Your task to perform on an android device: uninstall "WhatsApp Messenger" Image 0: 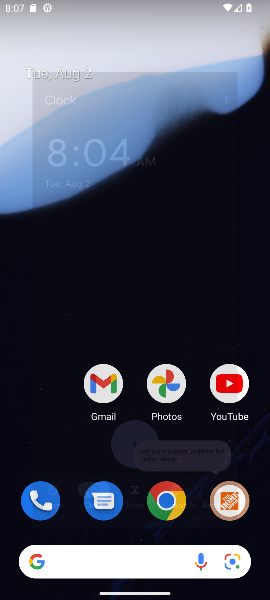
Step 0: click (252, 317)
Your task to perform on an android device: uninstall "WhatsApp Messenger" Image 1: 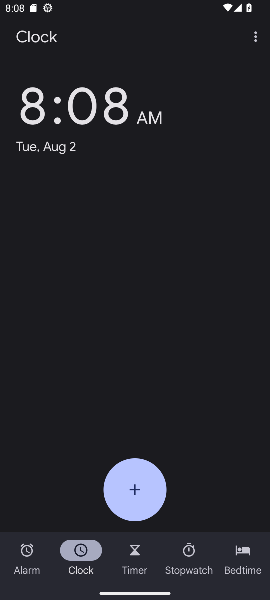
Step 1: drag from (174, 517) to (185, 165)
Your task to perform on an android device: uninstall "WhatsApp Messenger" Image 2: 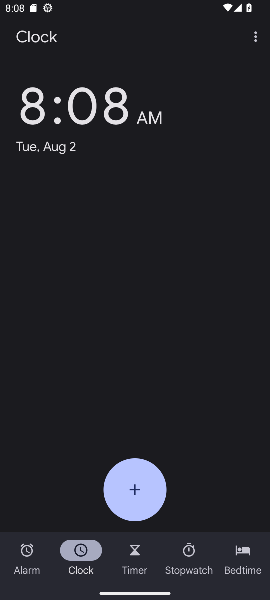
Step 2: drag from (182, 507) to (182, 174)
Your task to perform on an android device: uninstall "WhatsApp Messenger" Image 3: 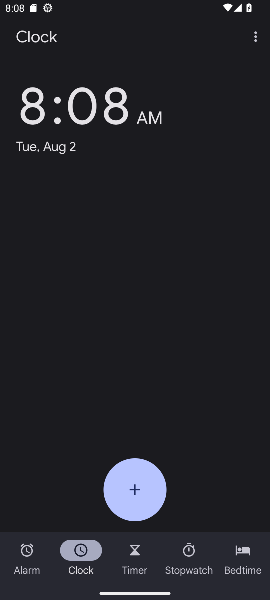
Step 3: press home button
Your task to perform on an android device: uninstall "WhatsApp Messenger" Image 4: 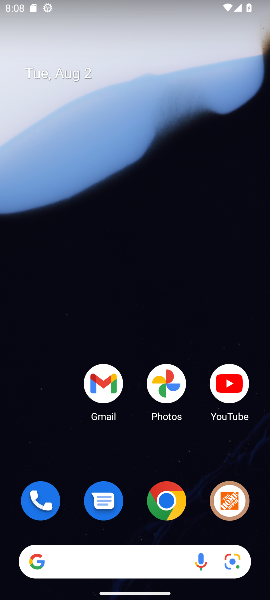
Step 4: drag from (141, 520) to (168, 144)
Your task to perform on an android device: uninstall "WhatsApp Messenger" Image 5: 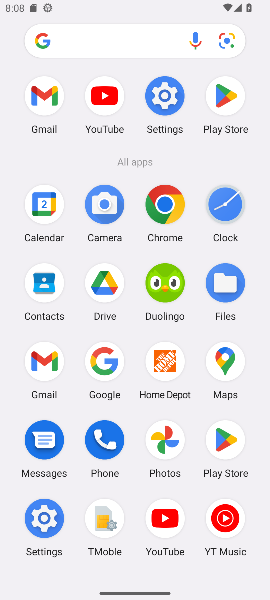
Step 5: click (222, 427)
Your task to perform on an android device: uninstall "WhatsApp Messenger" Image 6: 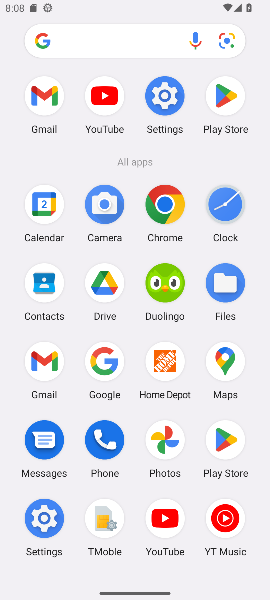
Step 6: click (222, 427)
Your task to perform on an android device: uninstall "WhatsApp Messenger" Image 7: 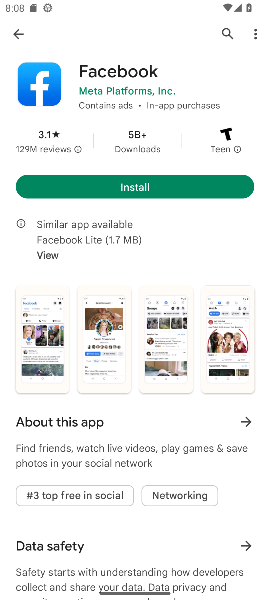
Step 7: drag from (151, 187) to (203, 595)
Your task to perform on an android device: uninstall "WhatsApp Messenger" Image 8: 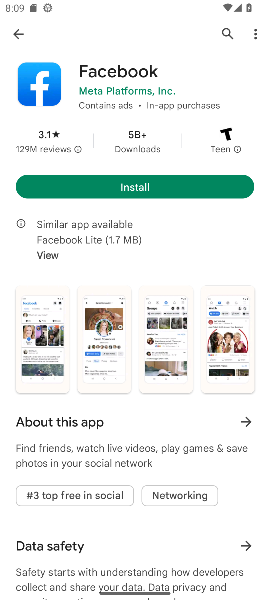
Step 8: click (229, 28)
Your task to perform on an android device: uninstall "WhatsApp Messenger" Image 9: 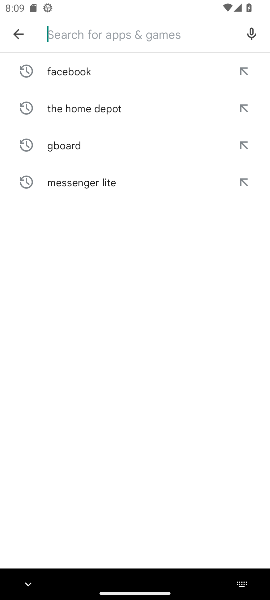
Step 9: type "WhatsApp Messenger"
Your task to perform on an android device: uninstall "WhatsApp Messenger" Image 10: 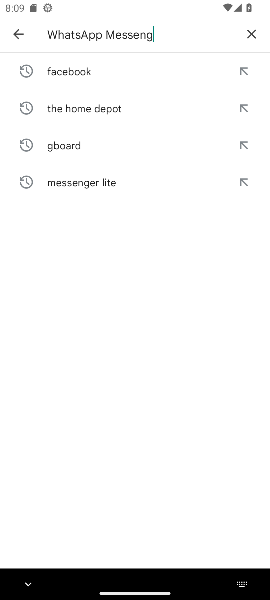
Step 10: type ""
Your task to perform on an android device: uninstall "WhatsApp Messenger" Image 11: 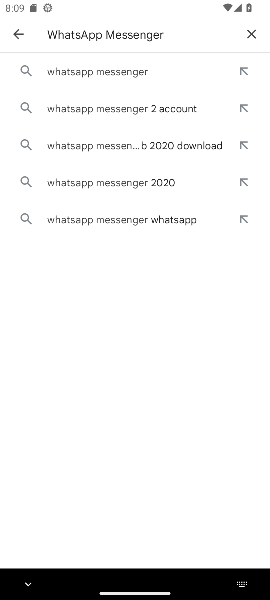
Step 11: click (79, 85)
Your task to perform on an android device: uninstall "WhatsApp Messenger" Image 12: 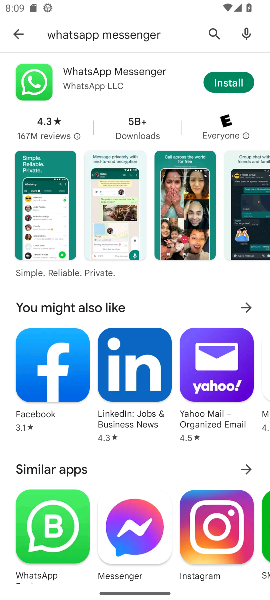
Step 12: click (65, 78)
Your task to perform on an android device: uninstall "WhatsApp Messenger" Image 13: 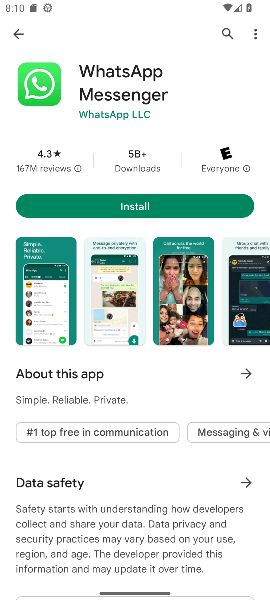
Step 13: task complete